Your task to perform on an android device: What's the weather? Image 0: 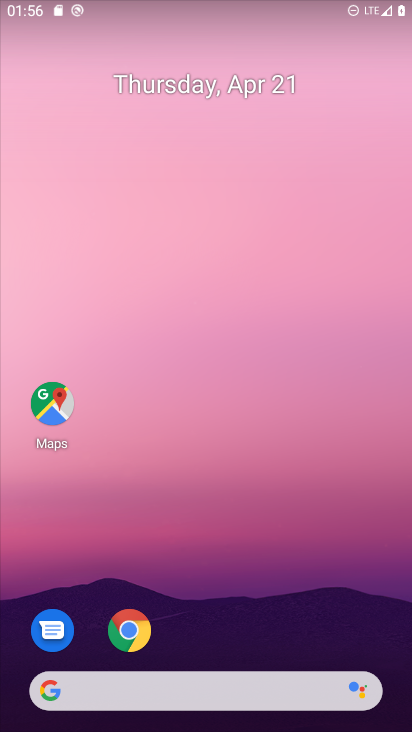
Step 0: drag from (257, 624) to (207, 228)
Your task to perform on an android device: What's the weather? Image 1: 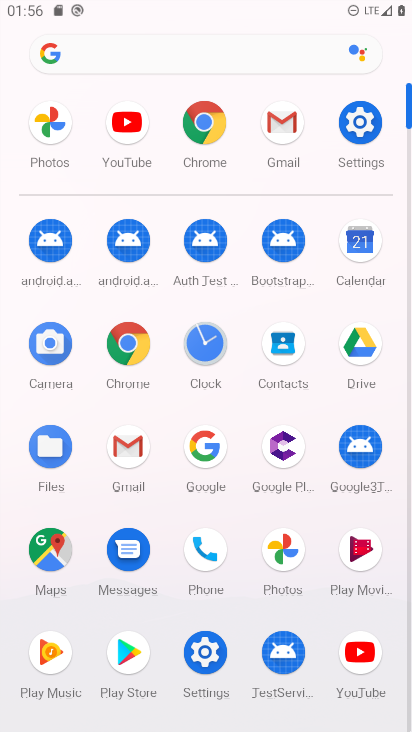
Step 1: click (230, 45)
Your task to perform on an android device: What's the weather? Image 2: 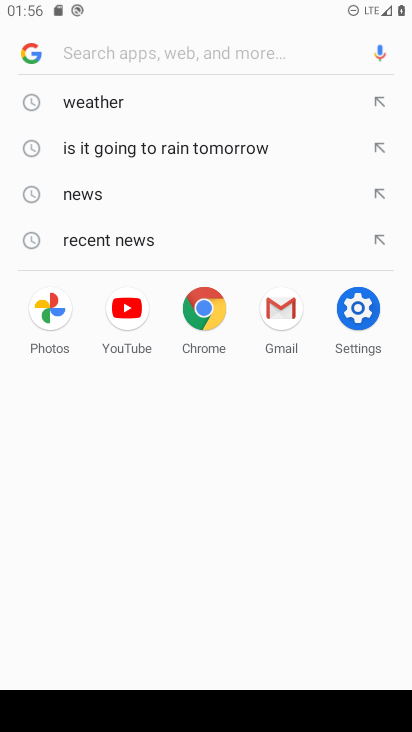
Step 2: click (173, 91)
Your task to perform on an android device: What's the weather? Image 3: 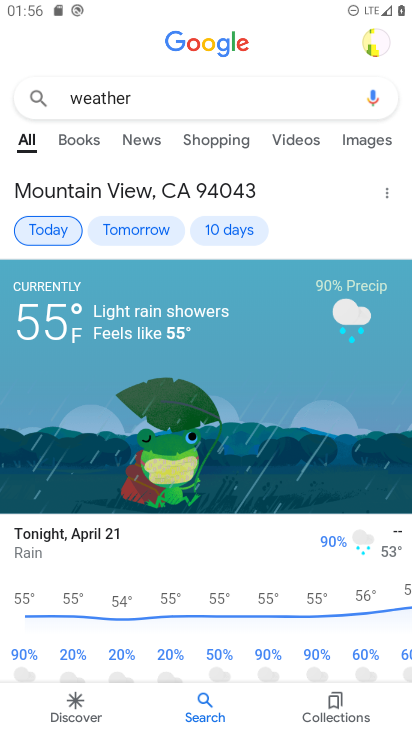
Step 3: task complete